Your task to perform on an android device: open app "Gboard" (install if not already installed) Image 0: 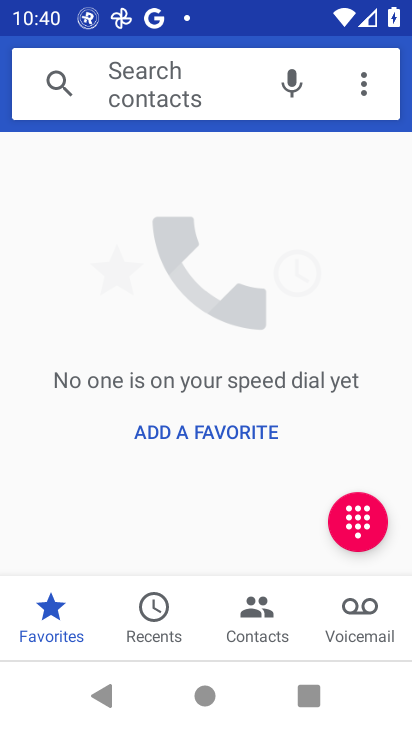
Step 0: drag from (238, 513) to (262, 313)
Your task to perform on an android device: open app "Gboard" (install if not already installed) Image 1: 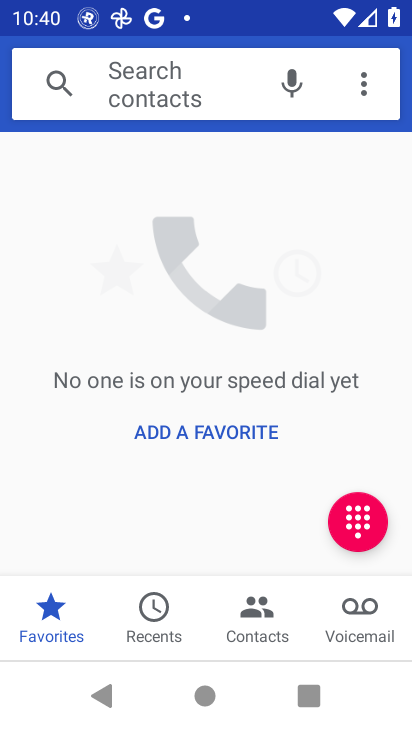
Step 1: press back button
Your task to perform on an android device: open app "Gboard" (install if not already installed) Image 2: 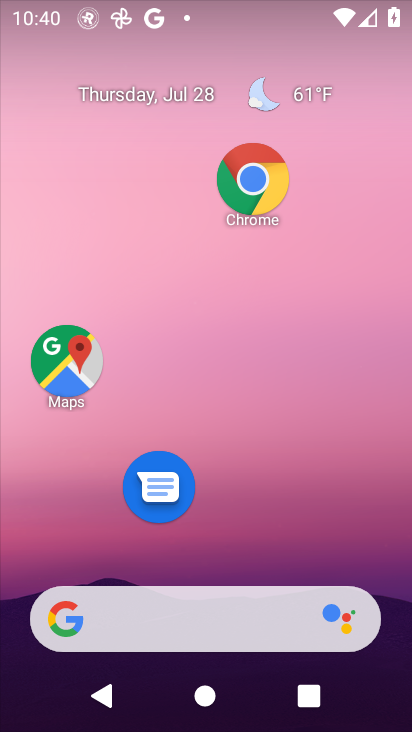
Step 2: drag from (240, 488) to (240, 312)
Your task to perform on an android device: open app "Gboard" (install if not already installed) Image 3: 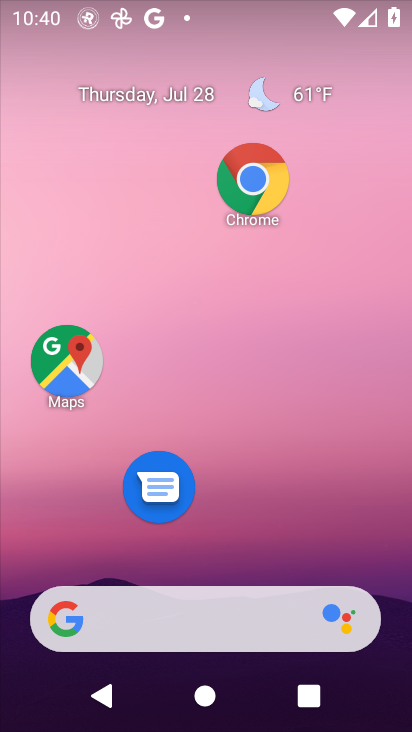
Step 3: drag from (238, 679) to (275, 259)
Your task to perform on an android device: open app "Gboard" (install if not already installed) Image 4: 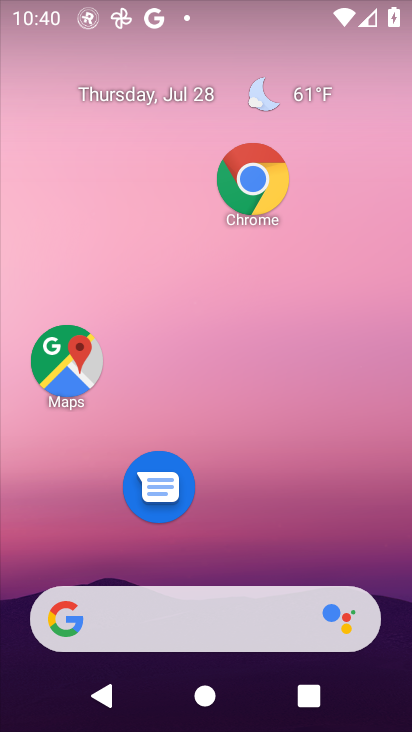
Step 4: drag from (257, 596) to (317, 180)
Your task to perform on an android device: open app "Gboard" (install if not already installed) Image 5: 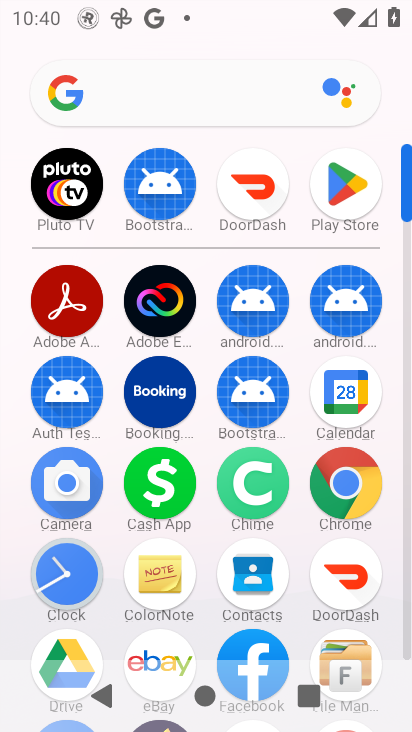
Step 5: click (336, 190)
Your task to perform on an android device: open app "Gboard" (install if not already installed) Image 6: 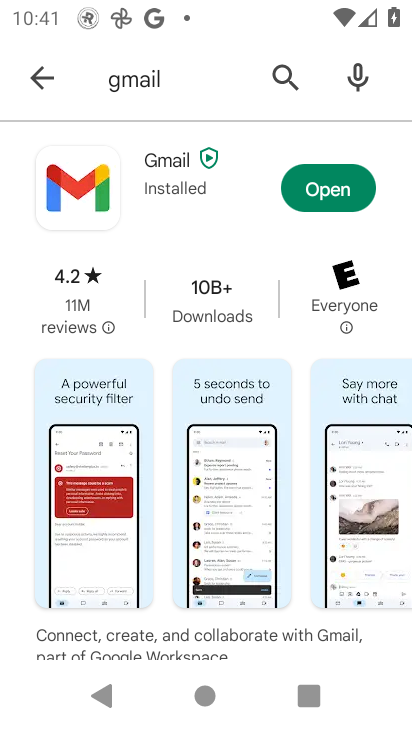
Step 6: click (51, 70)
Your task to perform on an android device: open app "Gboard" (install if not already installed) Image 7: 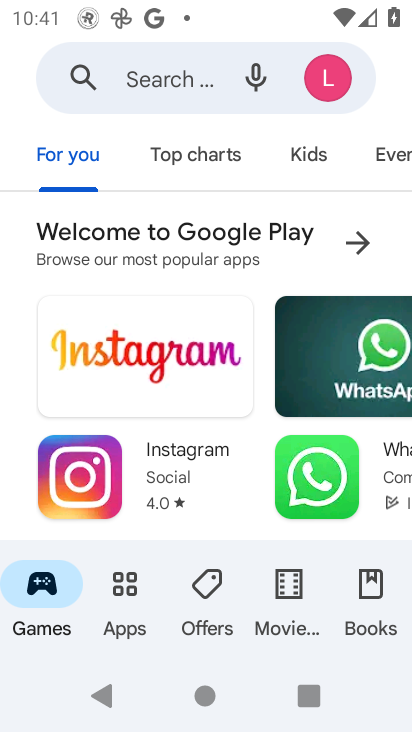
Step 7: click (146, 70)
Your task to perform on an android device: open app "Gboard" (install if not already installed) Image 8: 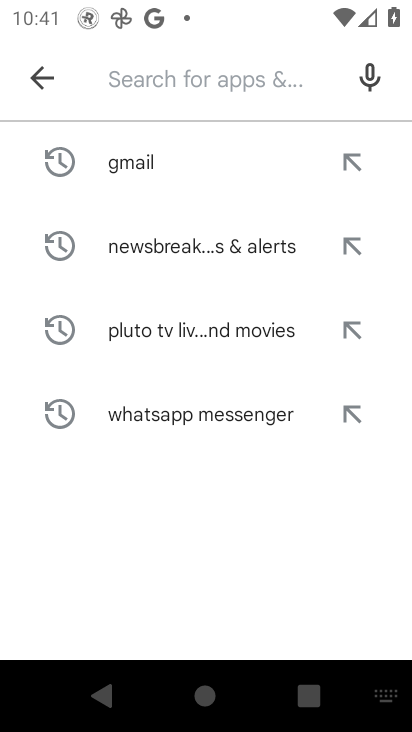
Step 8: type "Gboard"
Your task to perform on an android device: open app "Gboard" (install if not already installed) Image 9: 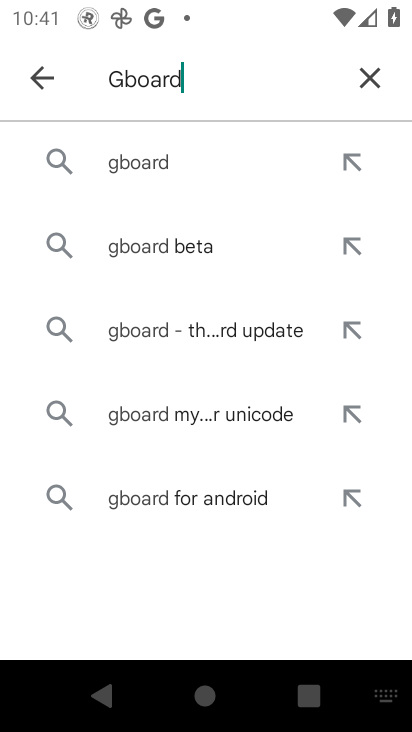
Step 9: click (145, 153)
Your task to perform on an android device: open app "Gboard" (install if not already installed) Image 10: 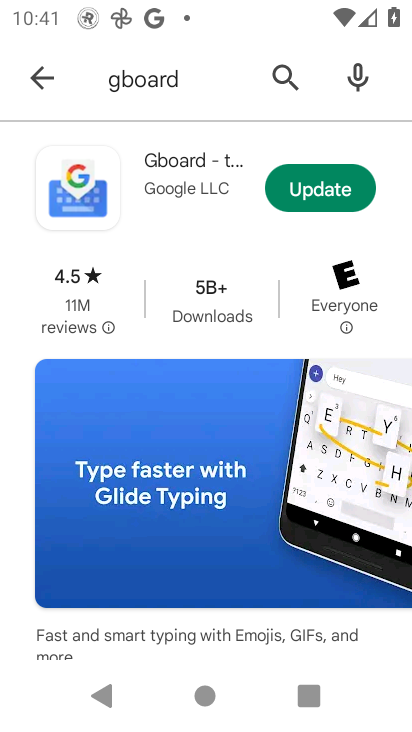
Step 10: click (314, 190)
Your task to perform on an android device: open app "Gboard" (install if not already installed) Image 11: 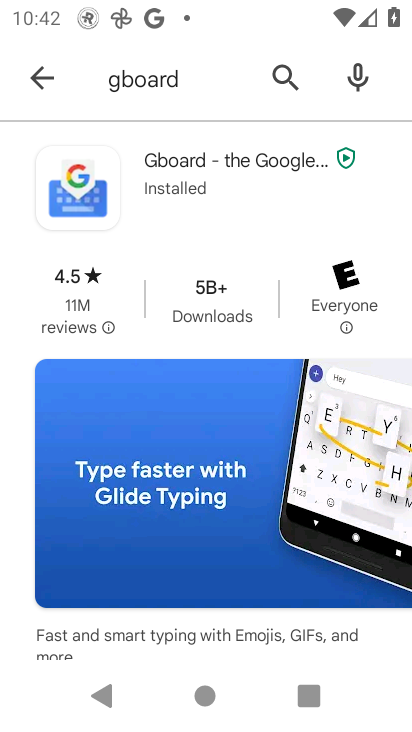
Step 11: click (175, 177)
Your task to perform on an android device: open app "Gboard" (install if not already installed) Image 12: 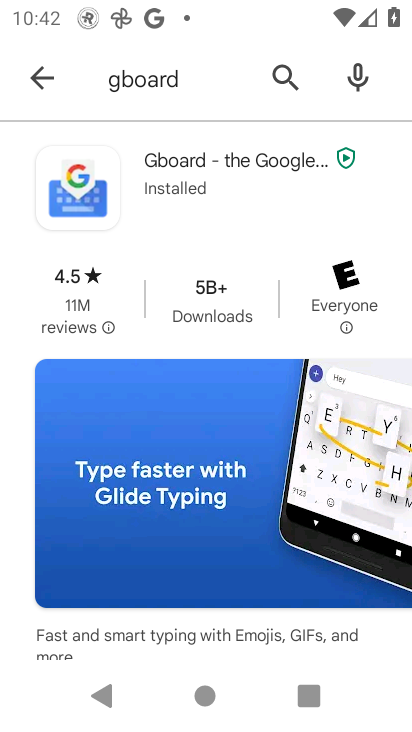
Step 12: click (178, 168)
Your task to perform on an android device: open app "Gboard" (install if not already installed) Image 13: 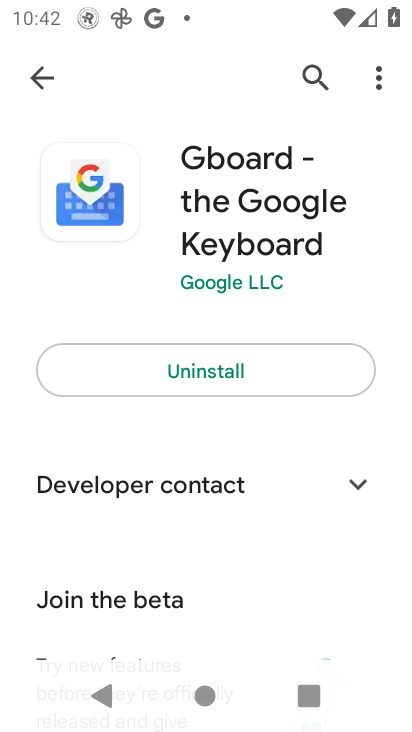
Step 13: click (183, 167)
Your task to perform on an android device: open app "Gboard" (install if not already installed) Image 14: 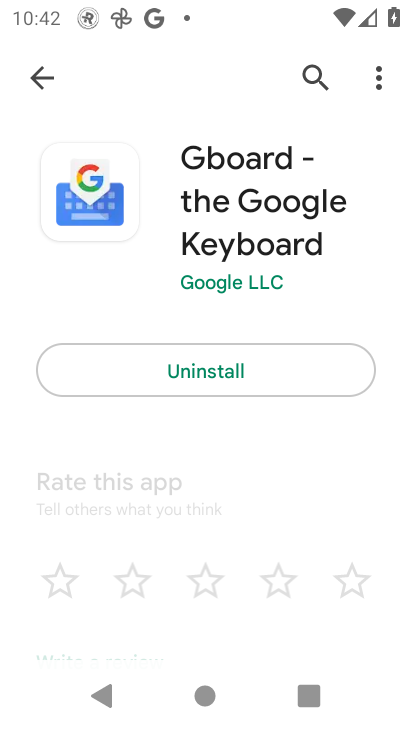
Step 14: click (183, 167)
Your task to perform on an android device: open app "Gboard" (install if not already installed) Image 15: 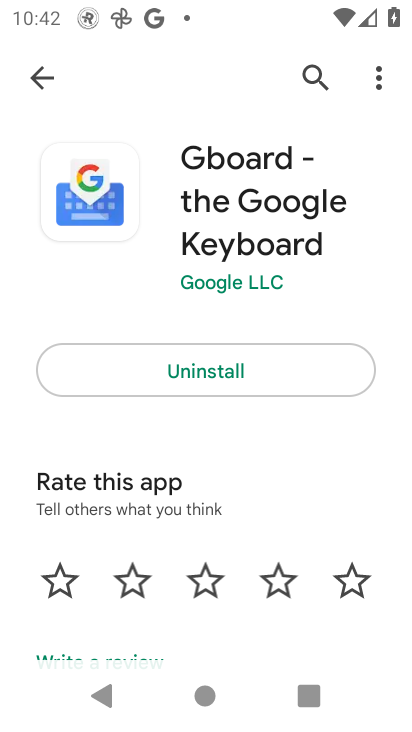
Step 15: click (185, 167)
Your task to perform on an android device: open app "Gboard" (install if not already installed) Image 16: 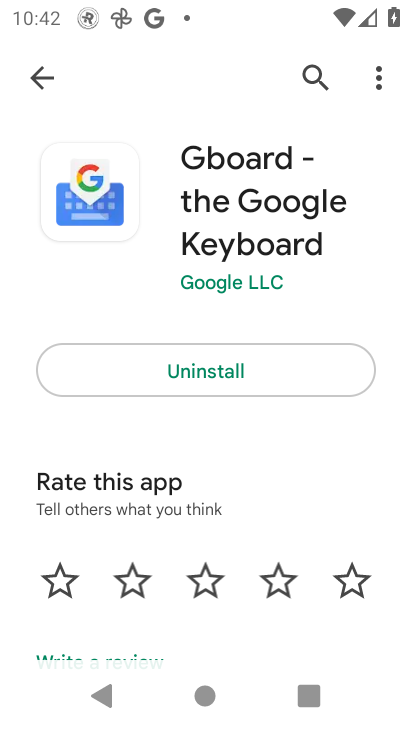
Step 16: click (36, 78)
Your task to perform on an android device: open app "Gboard" (install if not already installed) Image 17: 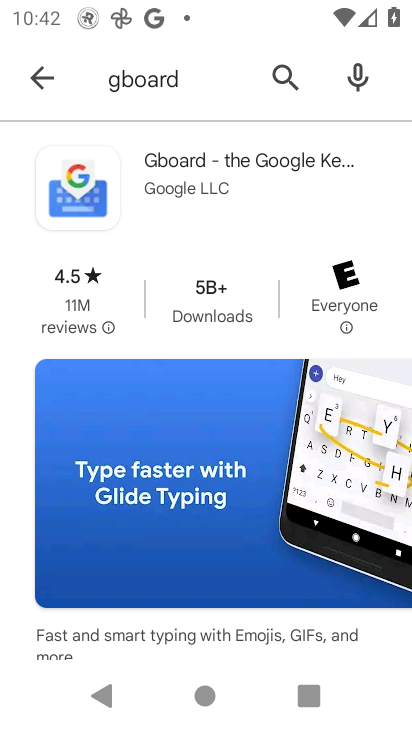
Step 17: task complete